Your task to perform on an android device: Do I have any events tomorrow? Image 0: 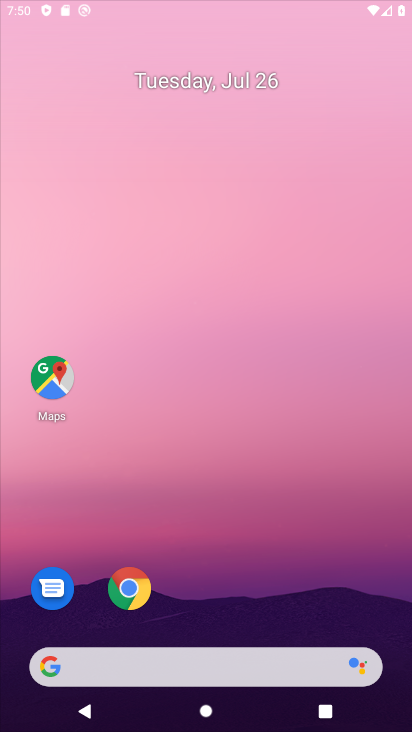
Step 0: drag from (301, 395) to (398, 76)
Your task to perform on an android device: Do I have any events tomorrow? Image 1: 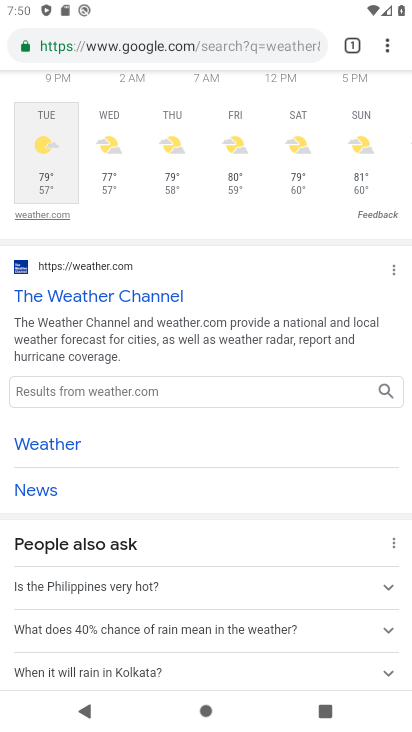
Step 1: press home button
Your task to perform on an android device: Do I have any events tomorrow? Image 2: 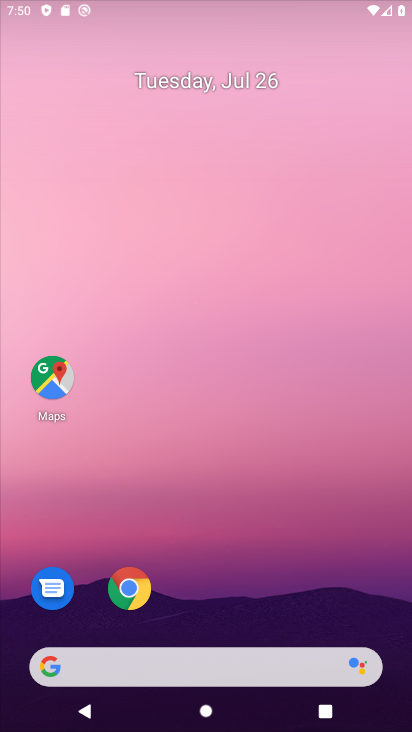
Step 2: drag from (178, 618) to (303, 102)
Your task to perform on an android device: Do I have any events tomorrow? Image 3: 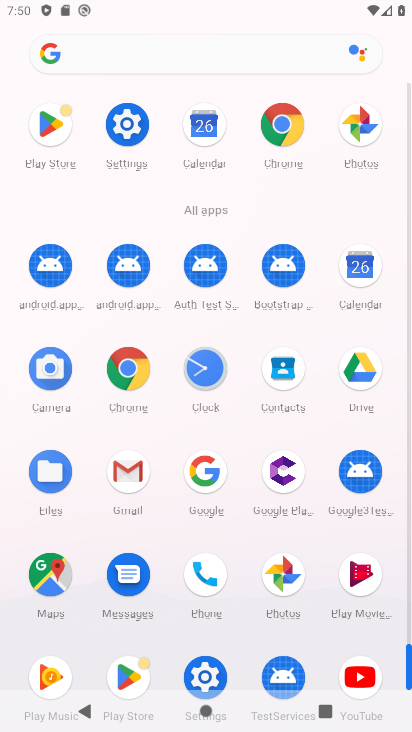
Step 3: click (363, 262)
Your task to perform on an android device: Do I have any events tomorrow? Image 4: 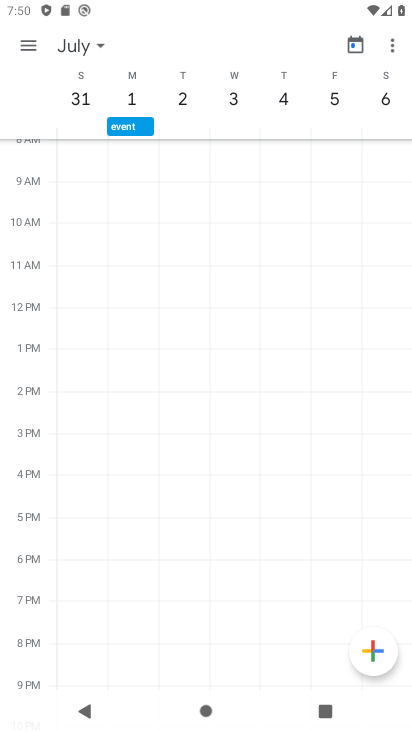
Step 4: click (72, 44)
Your task to perform on an android device: Do I have any events tomorrow? Image 5: 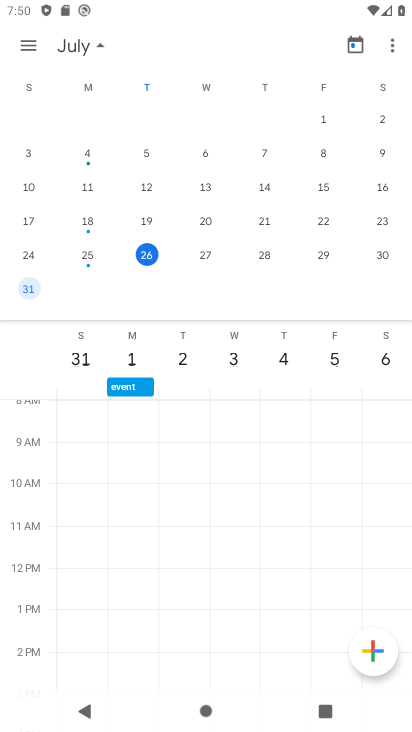
Step 5: click (200, 253)
Your task to perform on an android device: Do I have any events tomorrow? Image 6: 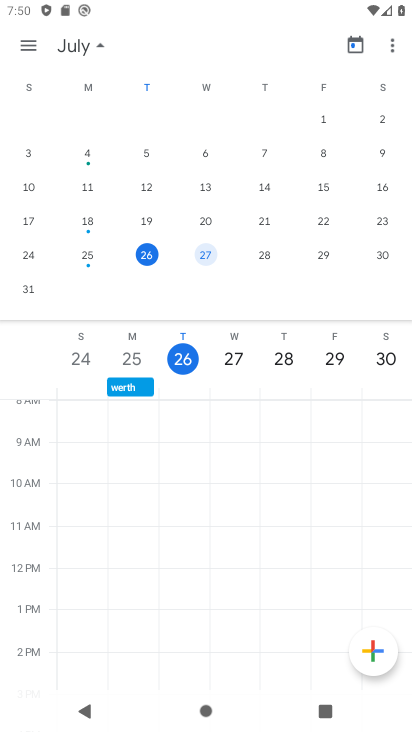
Step 6: click (228, 365)
Your task to perform on an android device: Do I have any events tomorrow? Image 7: 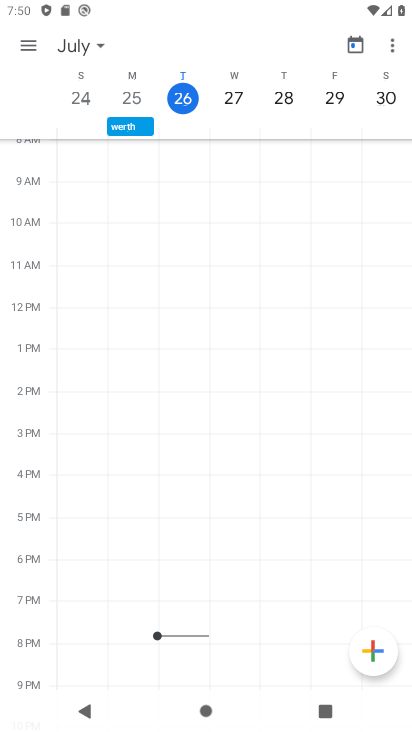
Step 7: click (240, 90)
Your task to perform on an android device: Do I have any events tomorrow? Image 8: 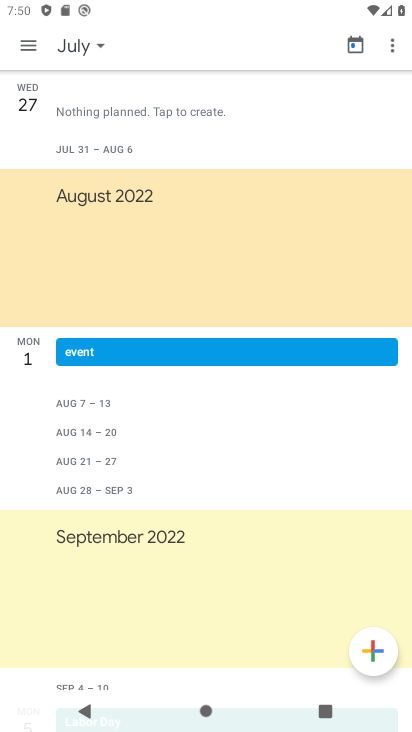
Step 8: task complete